Your task to perform on an android device: Open the map Image 0: 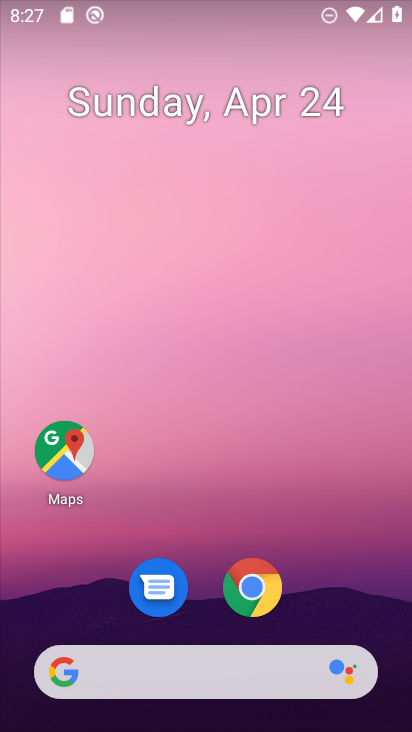
Step 0: drag from (394, 482) to (397, 186)
Your task to perform on an android device: Open the map Image 1: 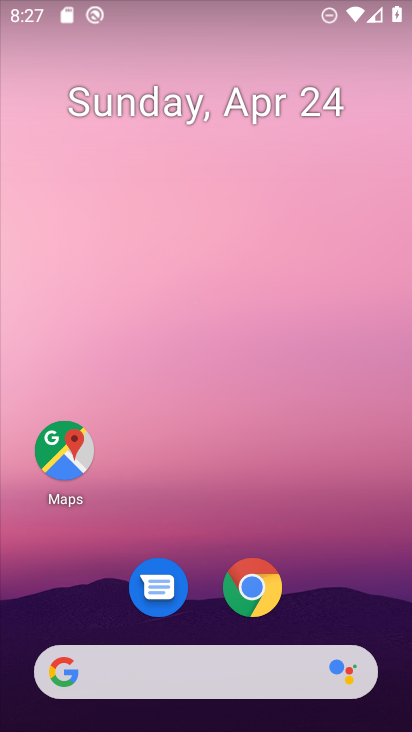
Step 1: drag from (390, 584) to (393, 170)
Your task to perform on an android device: Open the map Image 2: 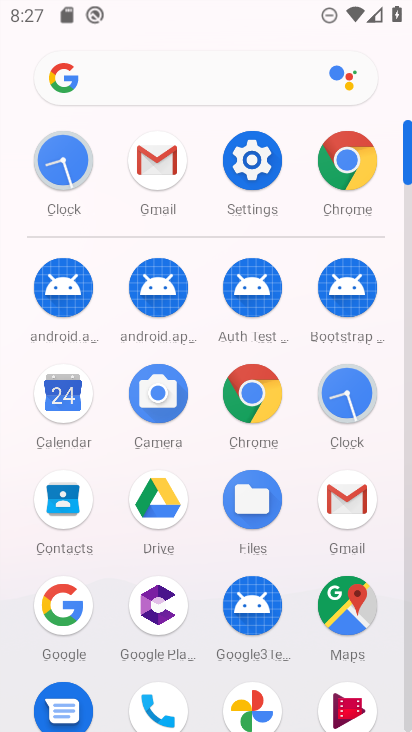
Step 2: click (329, 604)
Your task to perform on an android device: Open the map Image 3: 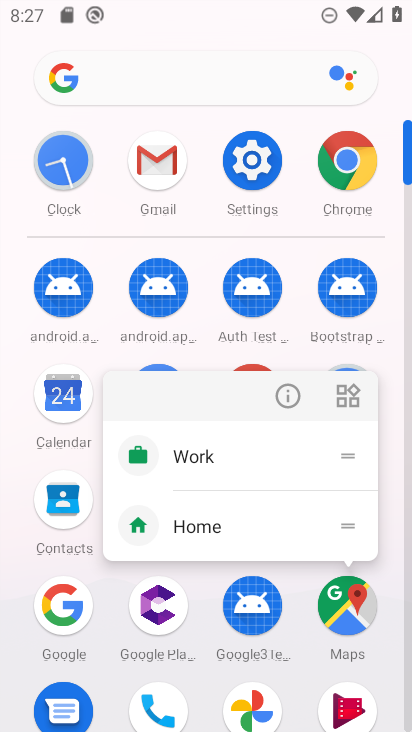
Step 3: click (328, 594)
Your task to perform on an android device: Open the map Image 4: 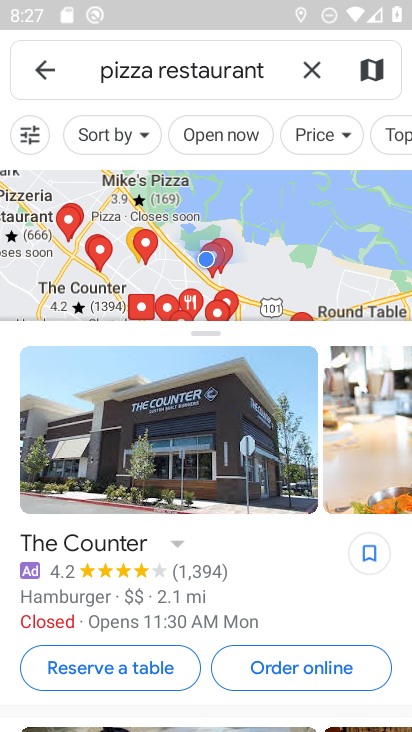
Step 4: task complete